Your task to perform on an android device: turn off priority inbox in the gmail app Image 0: 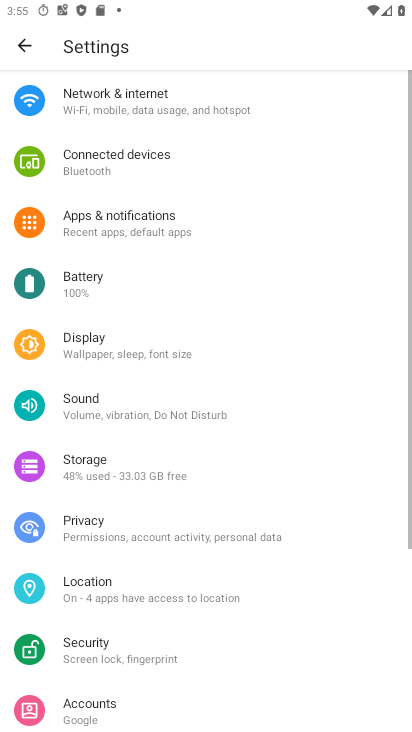
Step 0: press home button
Your task to perform on an android device: turn off priority inbox in the gmail app Image 1: 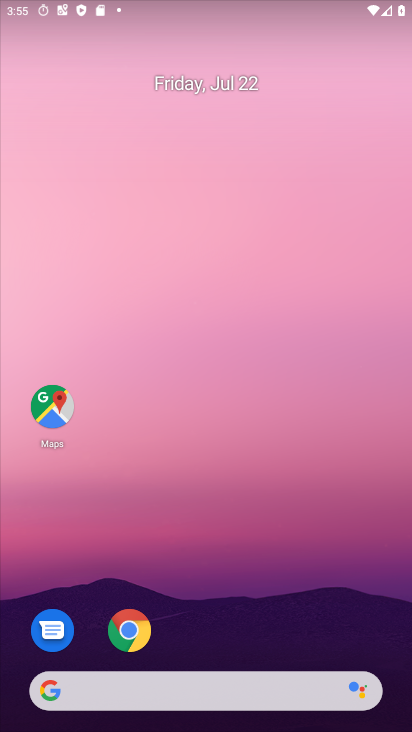
Step 1: drag from (196, 683) to (203, 7)
Your task to perform on an android device: turn off priority inbox in the gmail app Image 2: 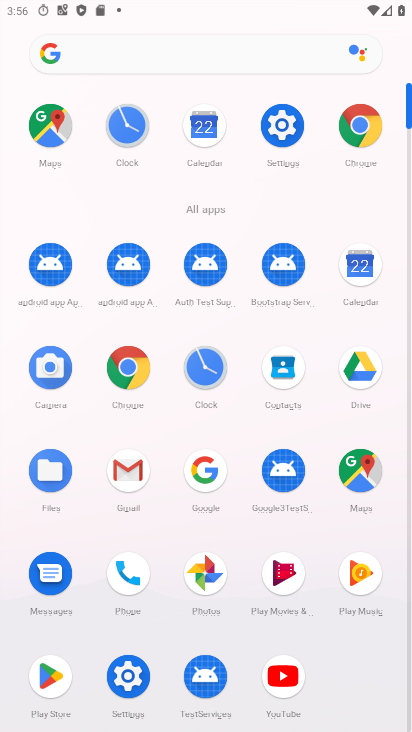
Step 2: click (134, 463)
Your task to perform on an android device: turn off priority inbox in the gmail app Image 3: 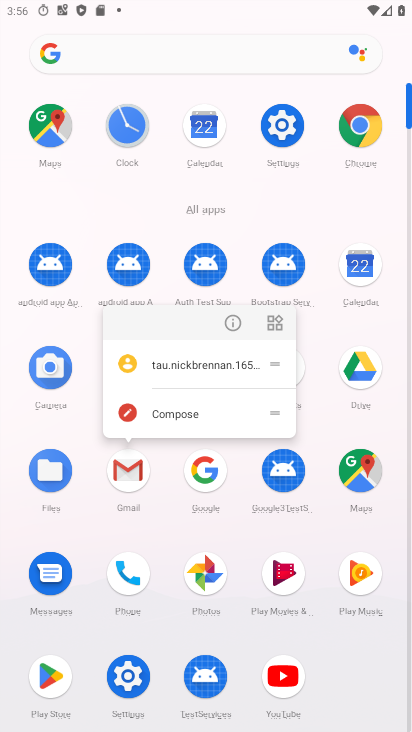
Step 3: click (134, 463)
Your task to perform on an android device: turn off priority inbox in the gmail app Image 4: 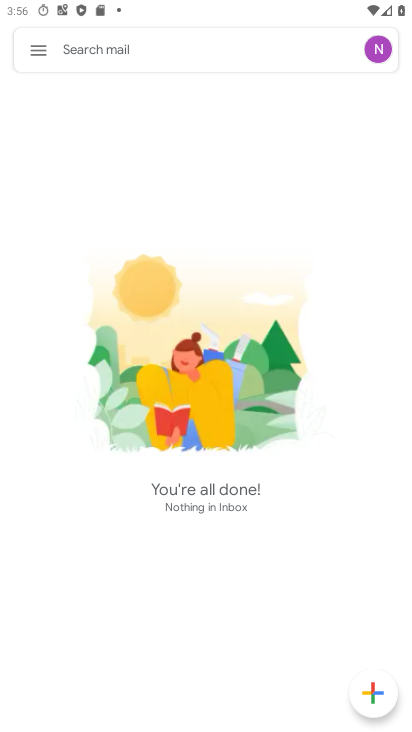
Step 4: click (31, 51)
Your task to perform on an android device: turn off priority inbox in the gmail app Image 5: 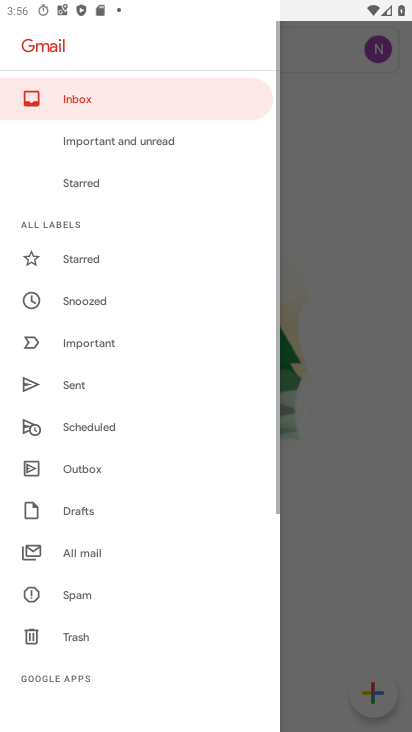
Step 5: drag from (117, 668) to (139, 250)
Your task to perform on an android device: turn off priority inbox in the gmail app Image 6: 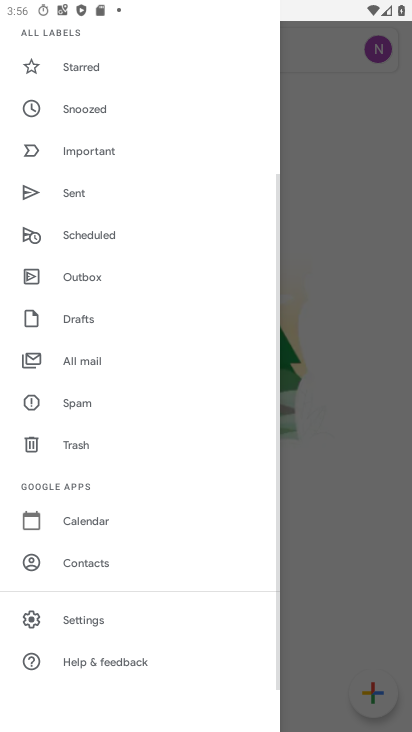
Step 6: click (75, 616)
Your task to perform on an android device: turn off priority inbox in the gmail app Image 7: 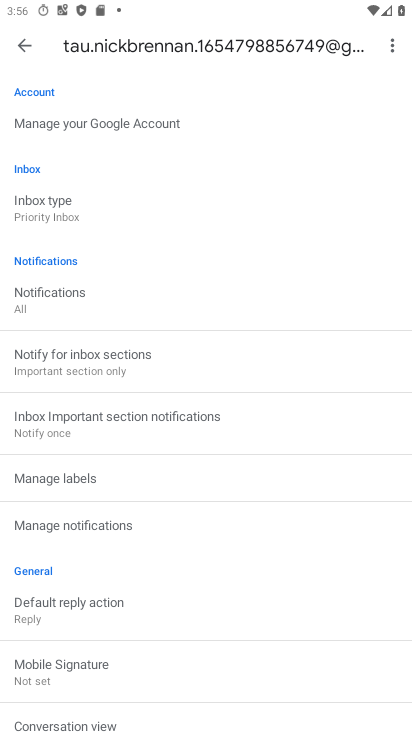
Step 7: click (58, 215)
Your task to perform on an android device: turn off priority inbox in the gmail app Image 8: 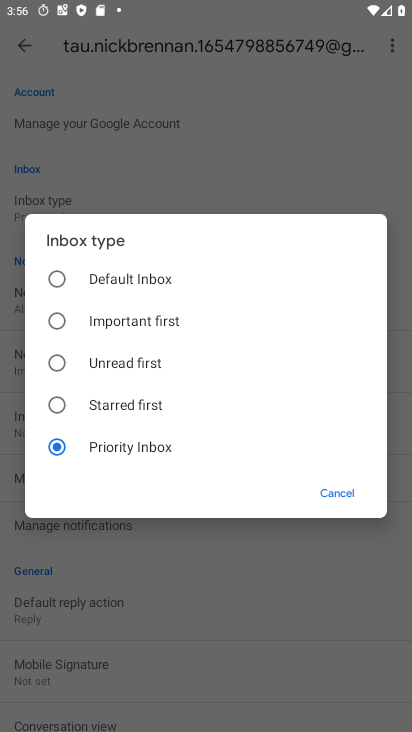
Step 8: click (56, 276)
Your task to perform on an android device: turn off priority inbox in the gmail app Image 9: 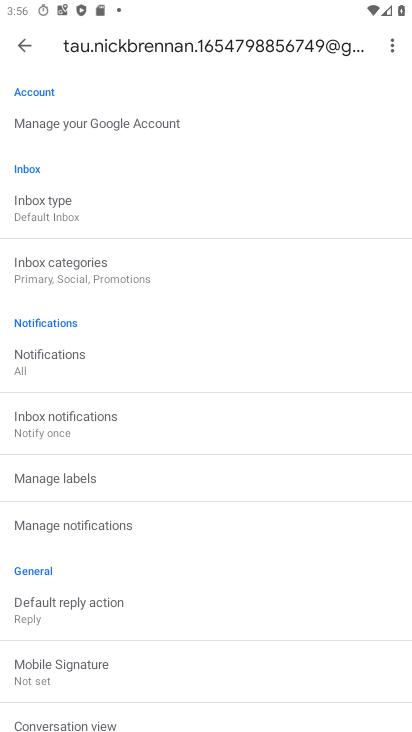
Step 9: task complete